Your task to perform on an android device: Open calendar and show me the second week of next month Image 0: 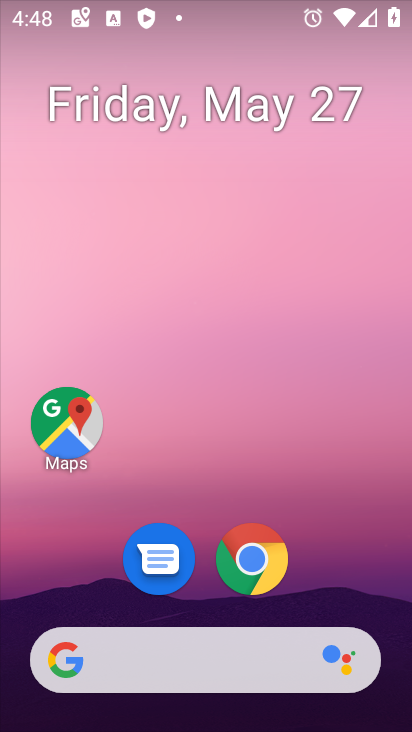
Step 0: drag from (274, 574) to (300, 130)
Your task to perform on an android device: Open calendar and show me the second week of next month Image 1: 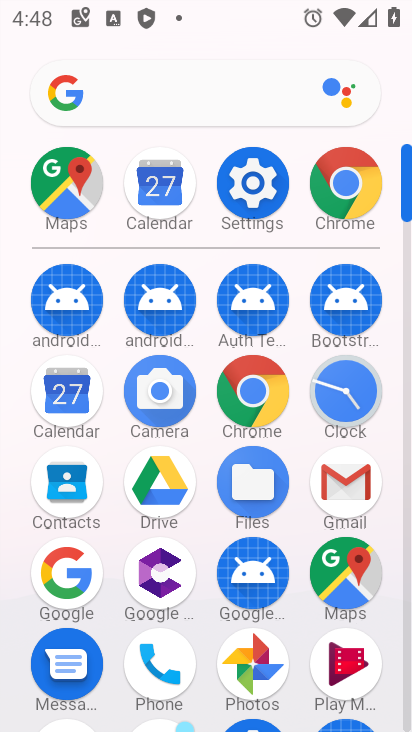
Step 1: click (62, 396)
Your task to perform on an android device: Open calendar and show me the second week of next month Image 2: 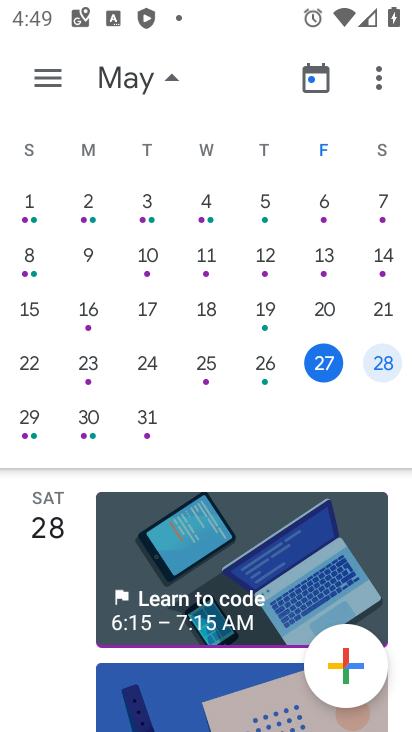
Step 2: drag from (370, 241) to (37, 287)
Your task to perform on an android device: Open calendar and show me the second week of next month Image 3: 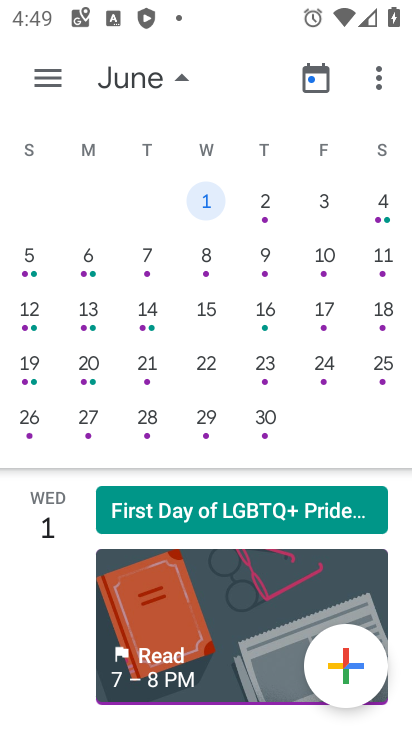
Step 3: click (195, 261)
Your task to perform on an android device: Open calendar and show me the second week of next month Image 4: 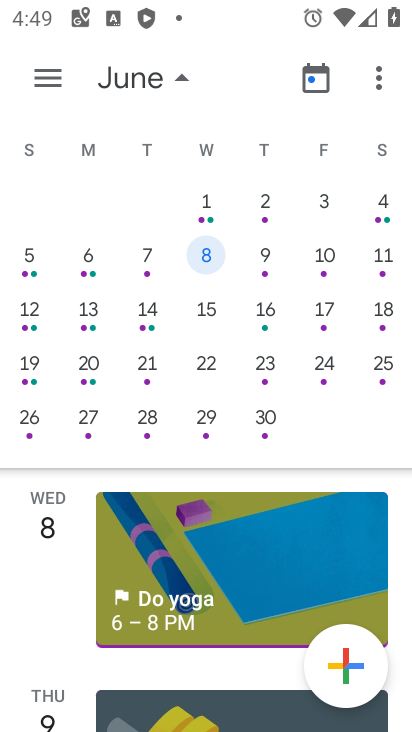
Step 4: click (47, 80)
Your task to perform on an android device: Open calendar and show me the second week of next month Image 5: 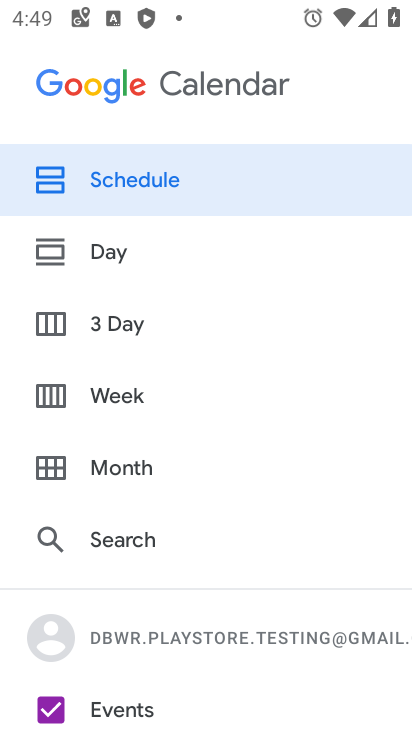
Step 5: click (144, 396)
Your task to perform on an android device: Open calendar and show me the second week of next month Image 6: 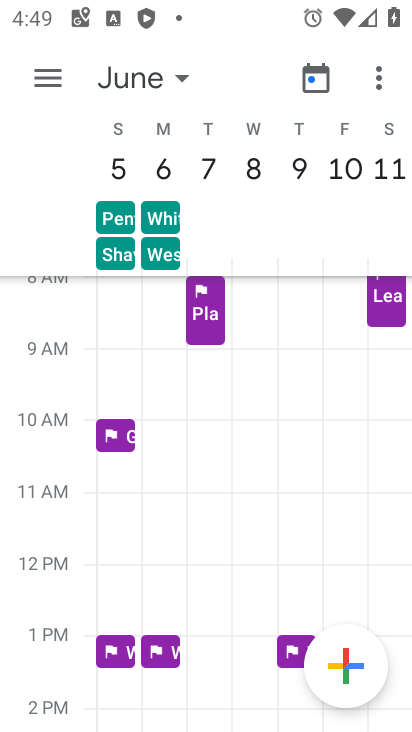
Step 6: task complete